Your task to perform on an android device: change notification settings in the gmail app Image 0: 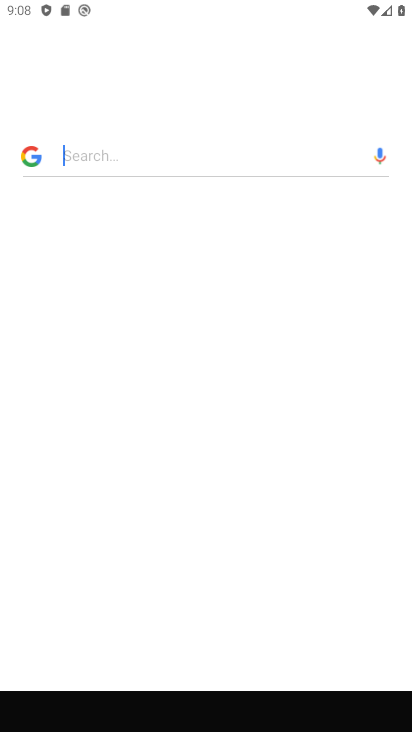
Step 0: drag from (212, 686) to (325, 365)
Your task to perform on an android device: change notification settings in the gmail app Image 1: 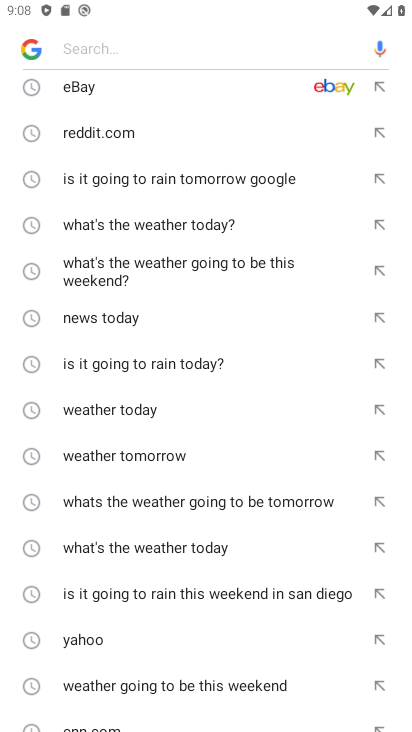
Step 1: press home button
Your task to perform on an android device: change notification settings in the gmail app Image 2: 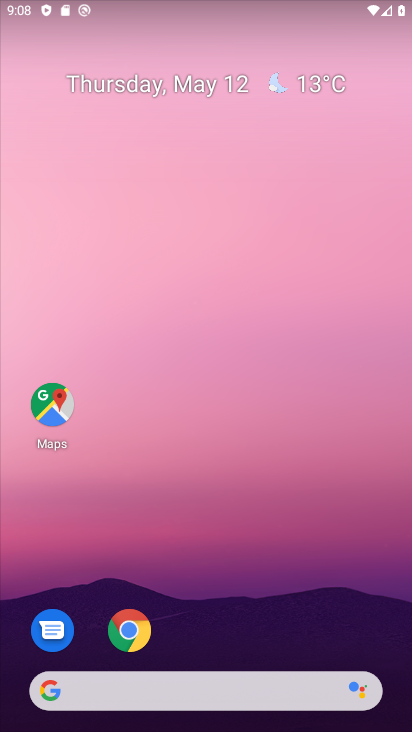
Step 2: drag from (164, 693) to (257, 382)
Your task to perform on an android device: change notification settings in the gmail app Image 3: 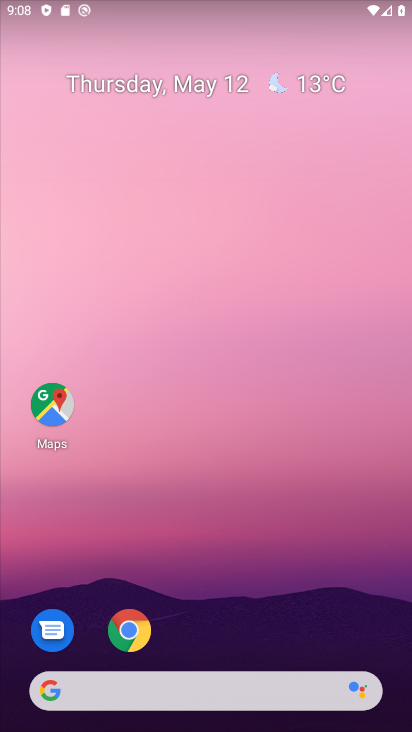
Step 3: drag from (178, 692) to (239, 409)
Your task to perform on an android device: change notification settings in the gmail app Image 4: 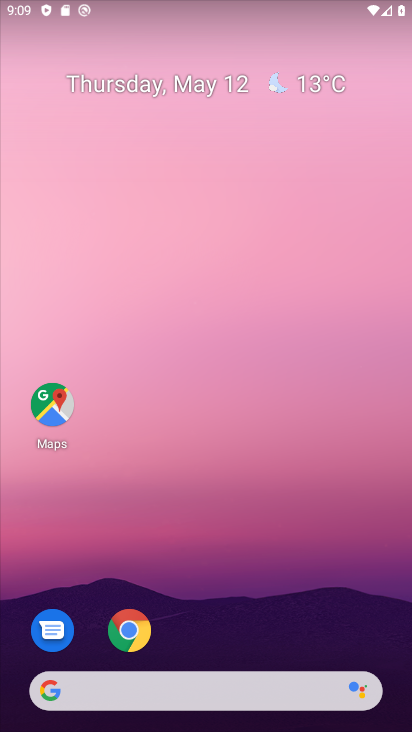
Step 4: drag from (191, 679) to (209, 425)
Your task to perform on an android device: change notification settings in the gmail app Image 5: 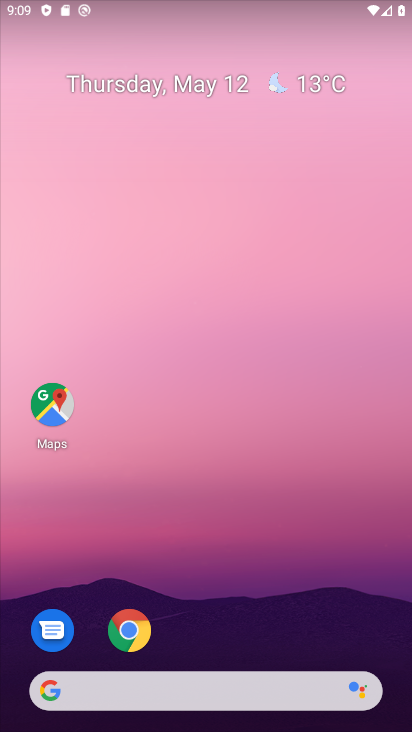
Step 5: drag from (148, 474) to (176, 701)
Your task to perform on an android device: change notification settings in the gmail app Image 6: 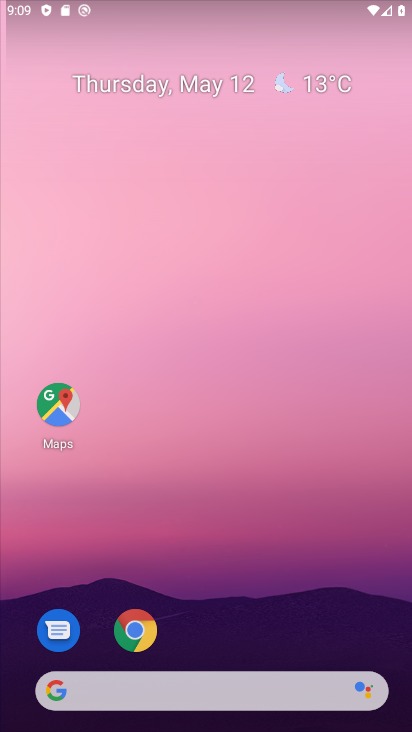
Step 6: drag from (178, 697) to (160, 387)
Your task to perform on an android device: change notification settings in the gmail app Image 7: 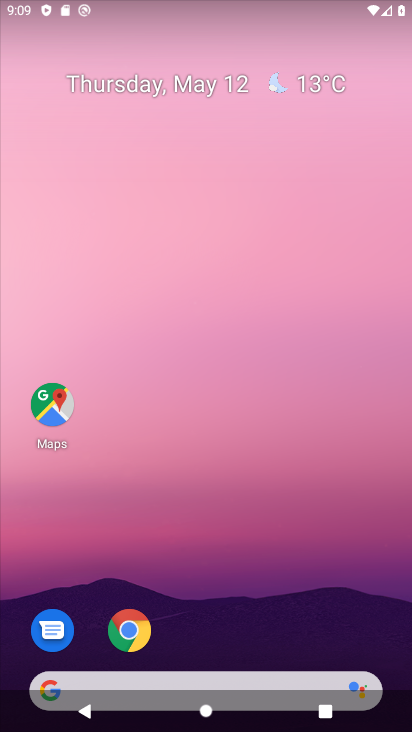
Step 7: drag from (219, 683) to (271, 13)
Your task to perform on an android device: change notification settings in the gmail app Image 8: 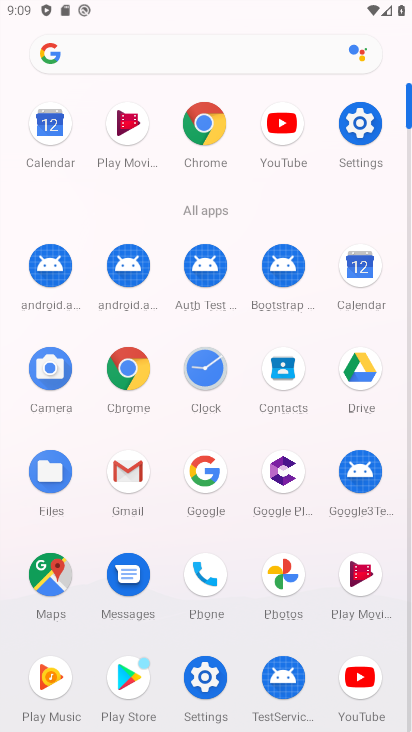
Step 8: click (125, 457)
Your task to perform on an android device: change notification settings in the gmail app Image 9: 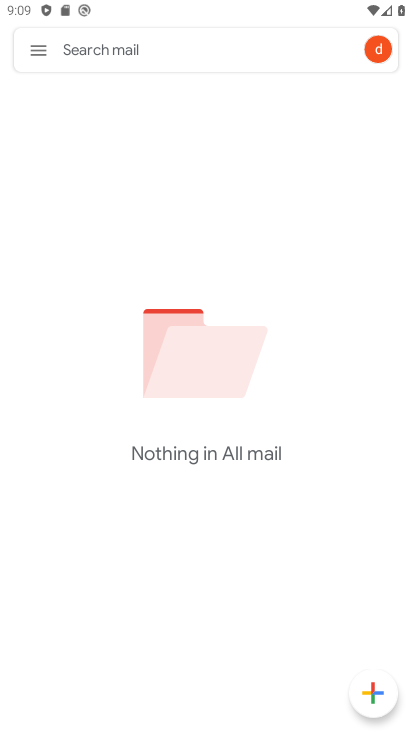
Step 9: click (33, 56)
Your task to perform on an android device: change notification settings in the gmail app Image 10: 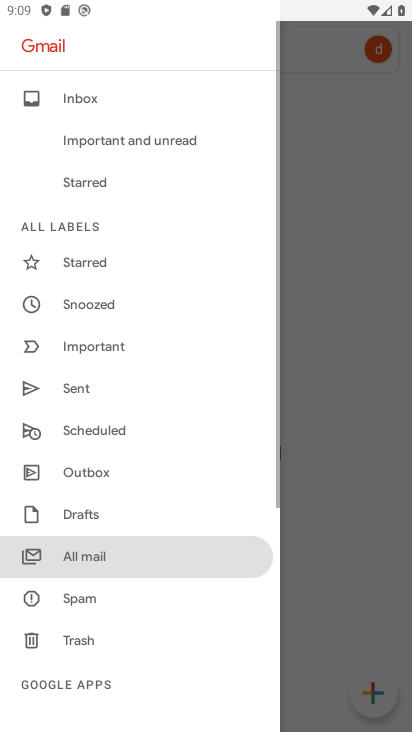
Step 10: drag from (84, 598) to (99, 157)
Your task to perform on an android device: change notification settings in the gmail app Image 11: 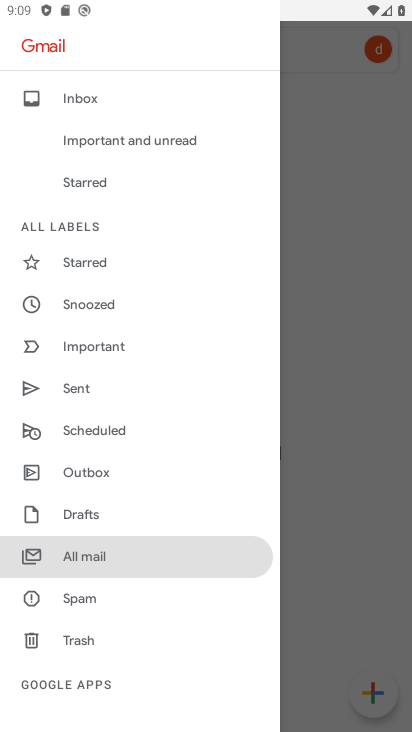
Step 11: drag from (120, 658) to (250, 110)
Your task to perform on an android device: change notification settings in the gmail app Image 12: 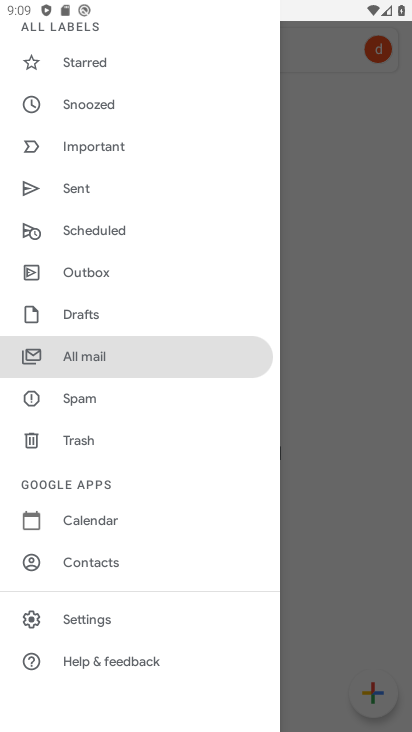
Step 12: click (58, 624)
Your task to perform on an android device: change notification settings in the gmail app Image 13: 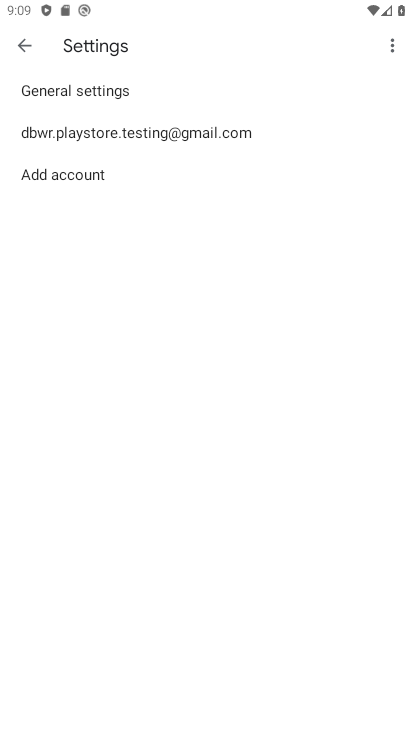
Step 13: click (158, 131)
Your task to perform on an android device: change notification settings in the gmail app Image 14: 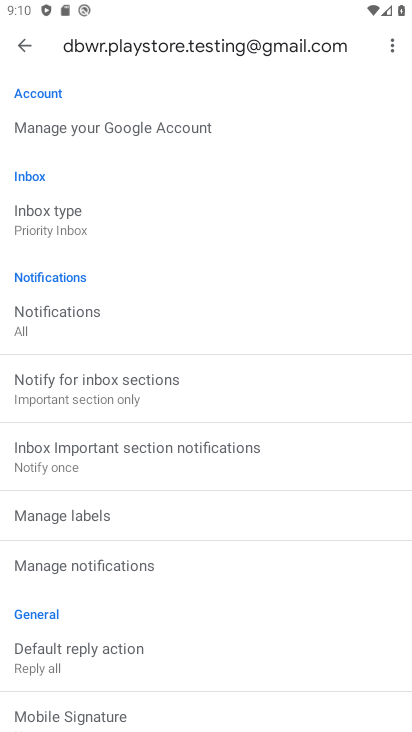
Step 14: click (109, 574)
Your task to perform on an android device: change notification settings in the gmail app Image 15: 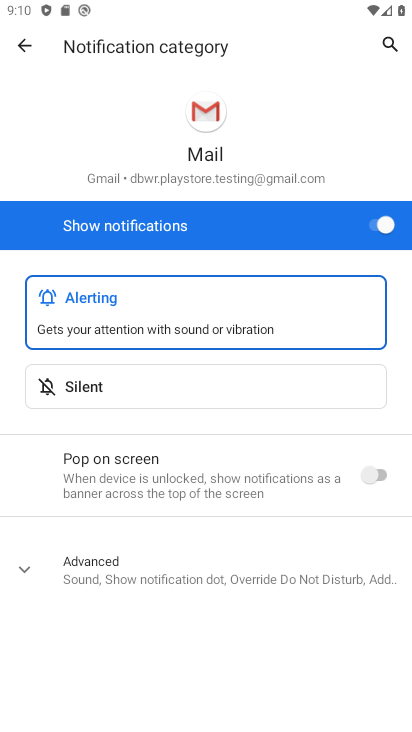
Step 15: click (377, 227)
Your task to perform on an android device: change notification settings in the gmail app Image 16: 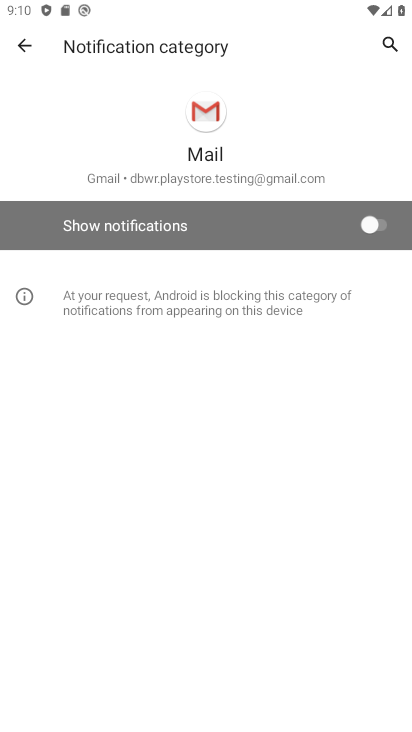
Step 16: task complete